Your task to perform on an android device: Open network settings Image 0: 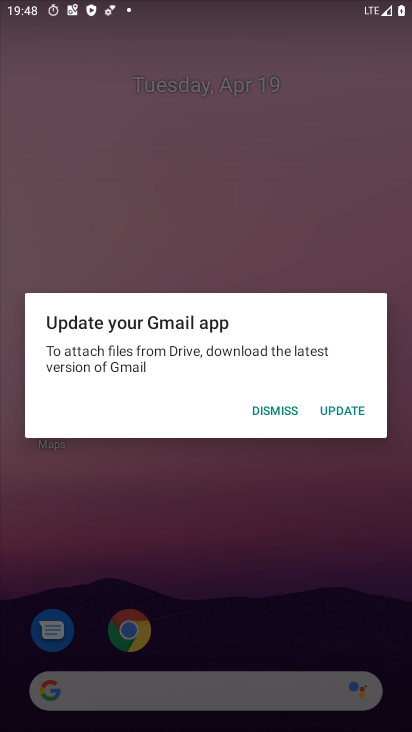
Step 0: press home button
Your task to perform on an android device: Open network settings Image 1: 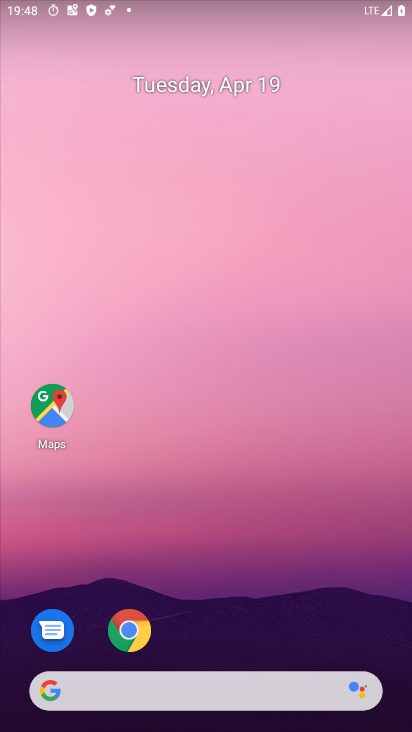
Step 1: drag from (207, 660) to (192, 25)
Your task to perform on an android device: Open network settings Image 2: 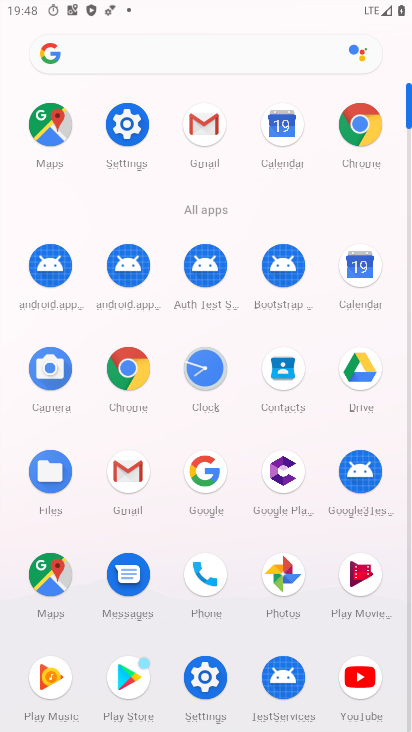
Step 2: click (127, 131)
Your task to perform on an android device: Open network settings Image 3: 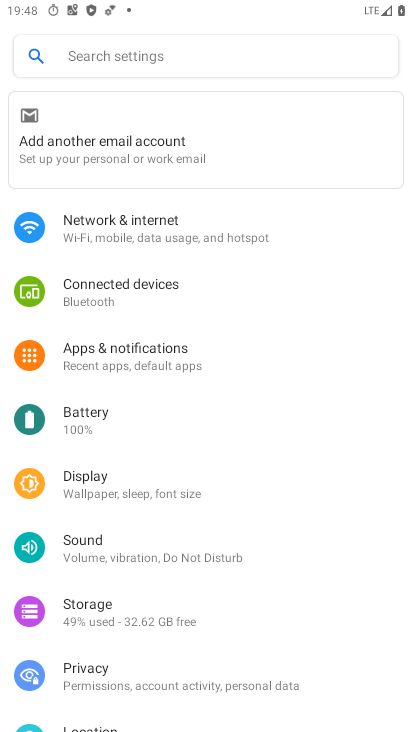
Step 3: click (127, 242)
Your task to perform on an android device: Open network settings Image 4: 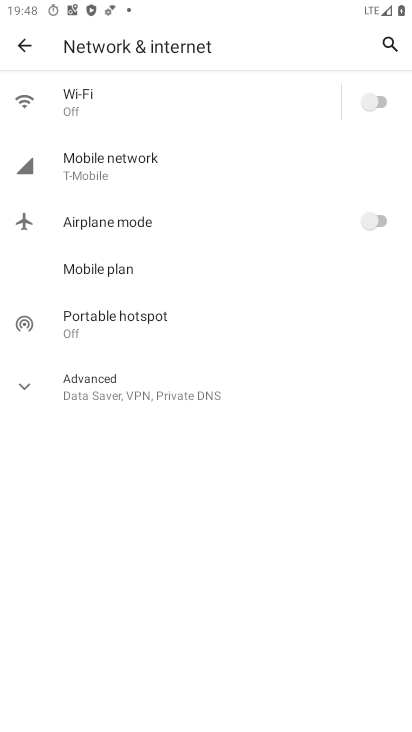
Step 4: click (133, 170)
Your task to perform on an android device: Open network settings Image 5: 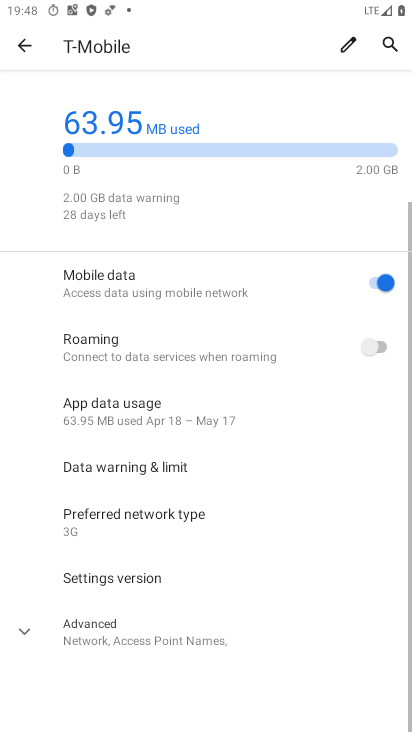
Step 5: drag from (137, 579) to (97, 95)
Your task to perform on an android device: Open network settings Image 6: 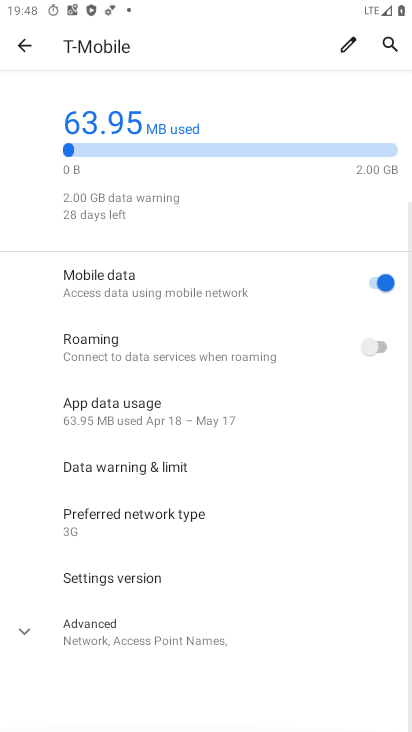
Step 6: click (76, 629)
Your task to perform on an android device: Open network settings Image 7: 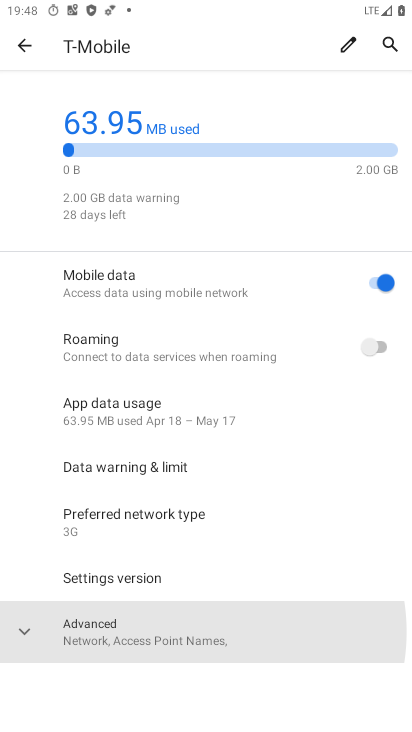
Step 7: task complete